Your task to perform on an android device: Open settings on Google Maps Image 0: 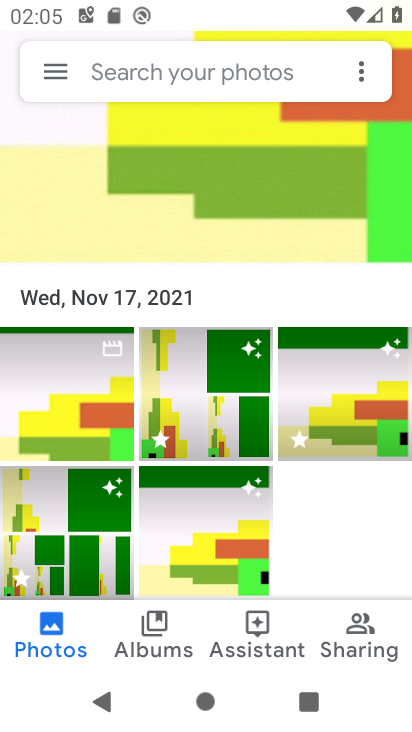
Step 0: press home button
Your task to perform on an android device: Open settings on Google Maps Image 1: 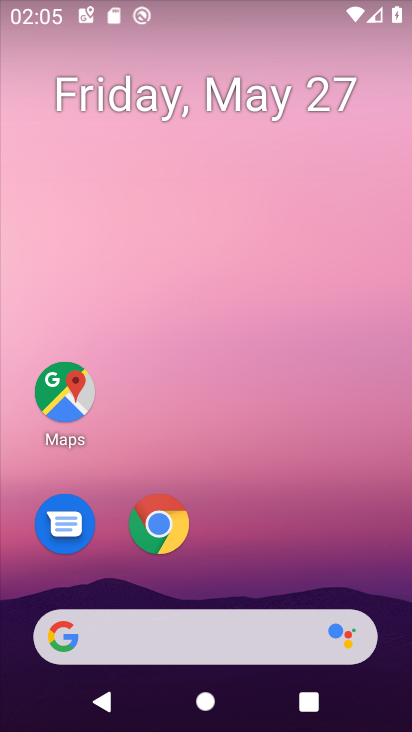
Step 1: click (60, 392)
Your task to perform on an android device: Open settings on Google Maps Image 2: 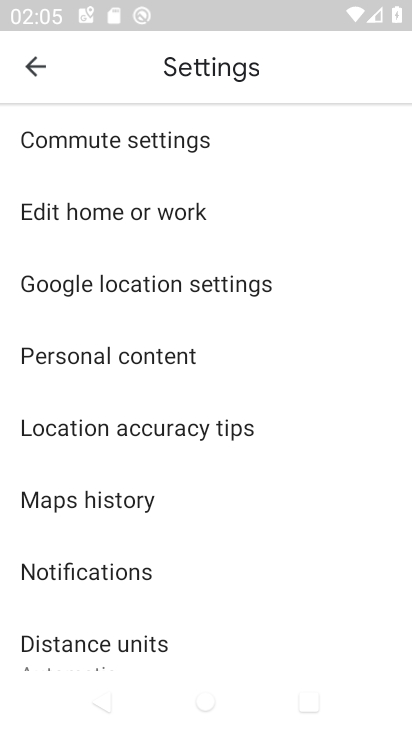
Step 2: task complete